Your task to perform on an android device: turn vacation reply on in the gmail app Image 0: 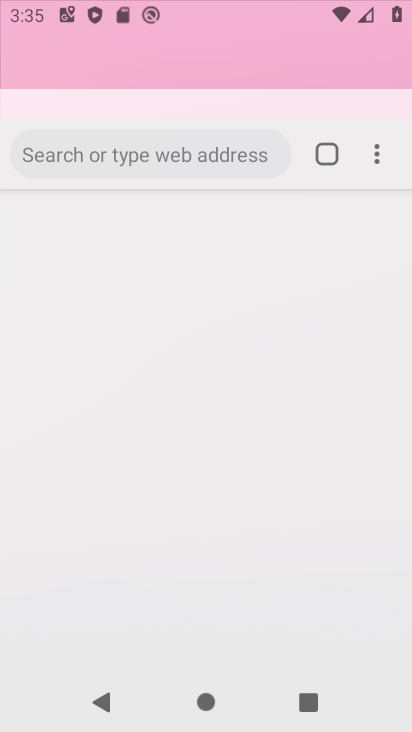
Step 0: click (302, 269)
Your task to perform on an android device: turn vacation reply on in the gmail app Image 1: 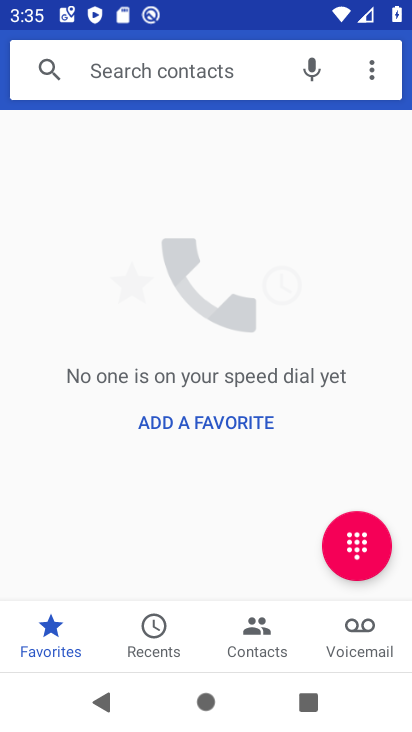
Step 1: press home button
Your task to perform on an android device: turn vacation reply on in the gmail app Image 2: 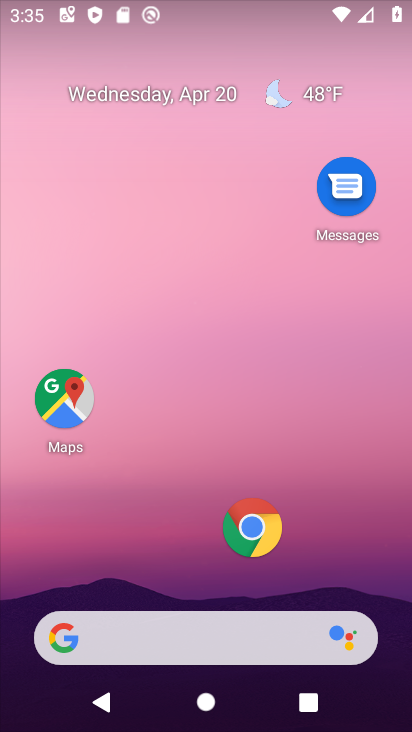
Step 2: drag from (161, 645) to (269, 97)
Your task to perform on an android device: turn vacation reply on in the gmail app Image 3: 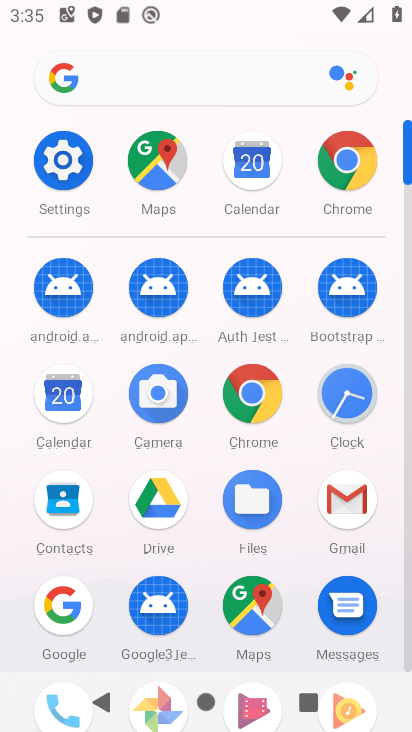
Step 3: click (347, 506)
Your task to perform on an android device: turn vacation reply on in the gmail app Image 4: 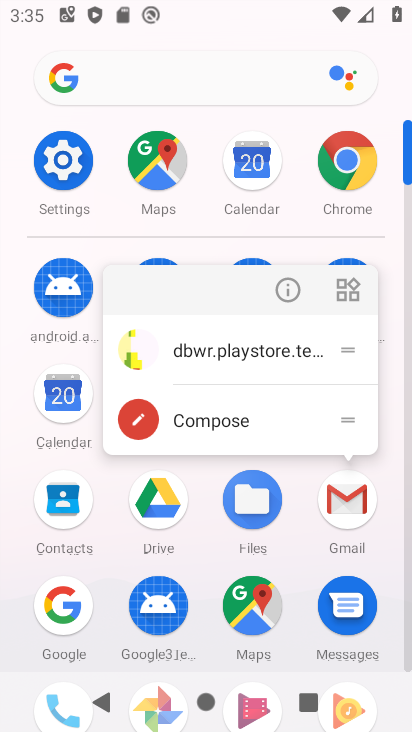
Step 4: click (339, 505)
Your task to perform on an android device: turn vacation reply on in the gmail app Image 5: 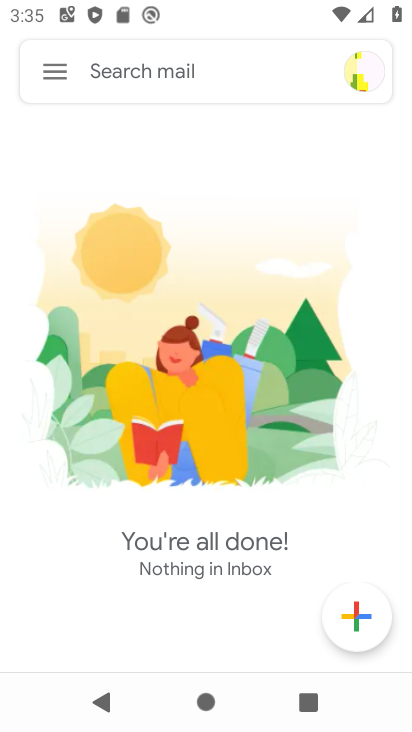
Step 5: click (59, 76)
Your task to perform on an android device: turn vacation reply on in the gmail app Image 6: 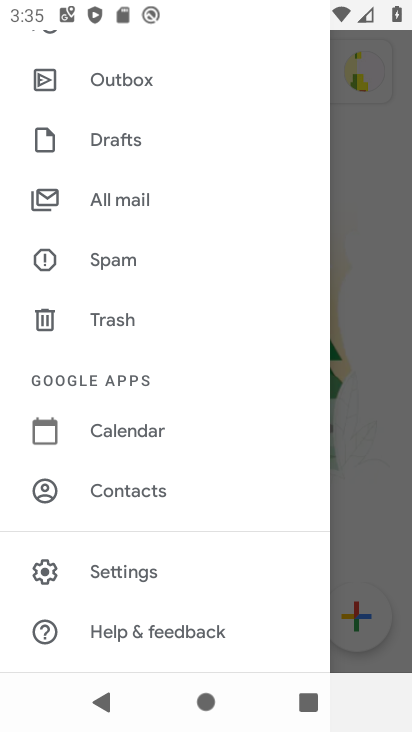
Step 6: click (133, 570)
Your task to perform on an android device: turn vacation reply on in the gmail app Image 7: 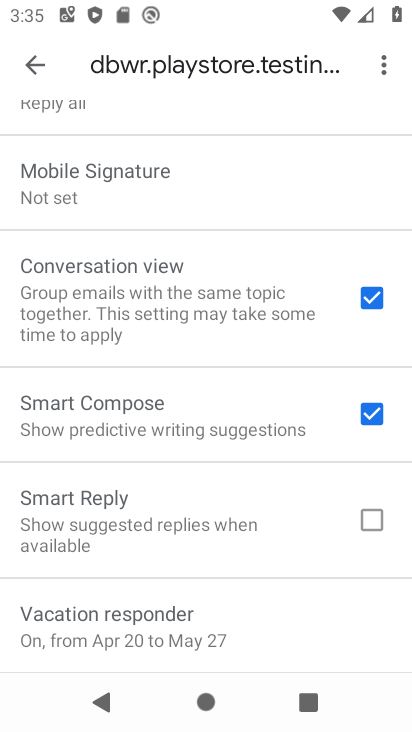
Step 7: click (139, 621)
Your task to perform on an android device: turn vacation reply on in the gmail app Image 8: 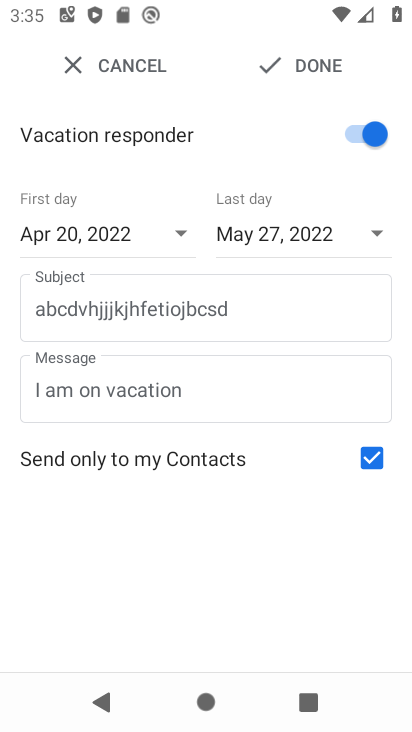
Step 8: task complete